Your task to perform on an android device: Open battery settings Image 0: 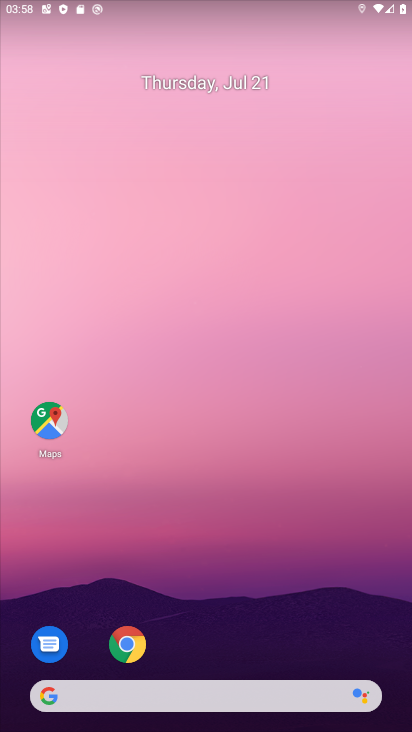
Step 0: drag from (218, 669) to (228, 35)
Your task to perform on an android device: Open battery settings Image 1: 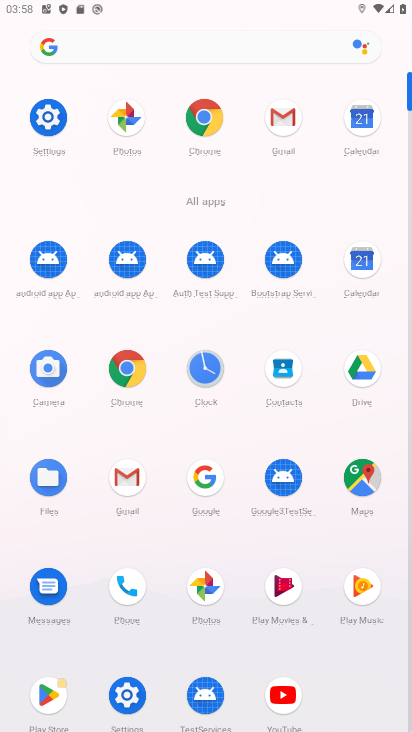
Step 1: click (42, 119)
Your task to perform on an android device: Open battery settings Image 2: 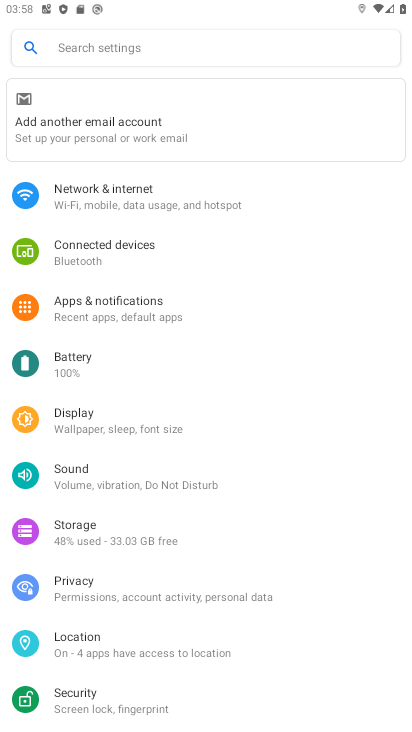
Step 2: click (68, 368)
Your task to perform on an android device: Open battery settings Image 3: 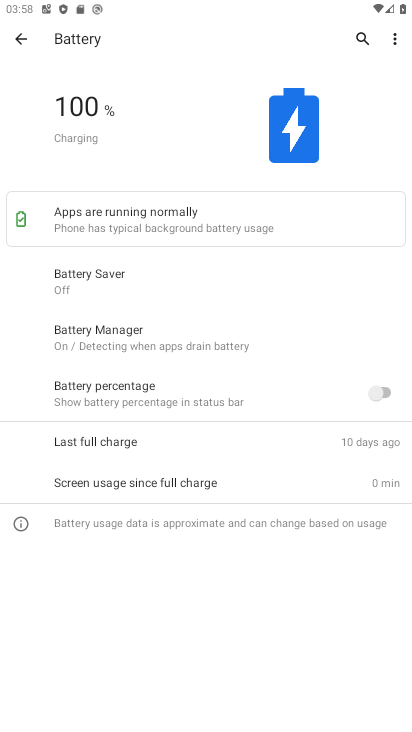
Step 3: task complete